Your task to perform on an android device: Turn off the flashlight Image 0: 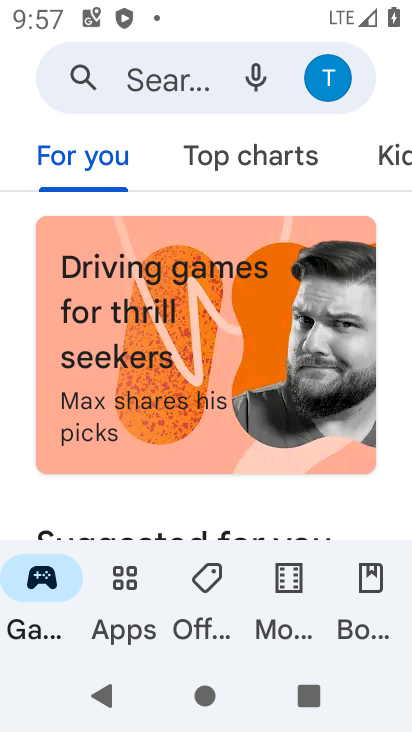
Step 0: press home button
Your task to perform on an android device: Turn off the flashlight Image 1: 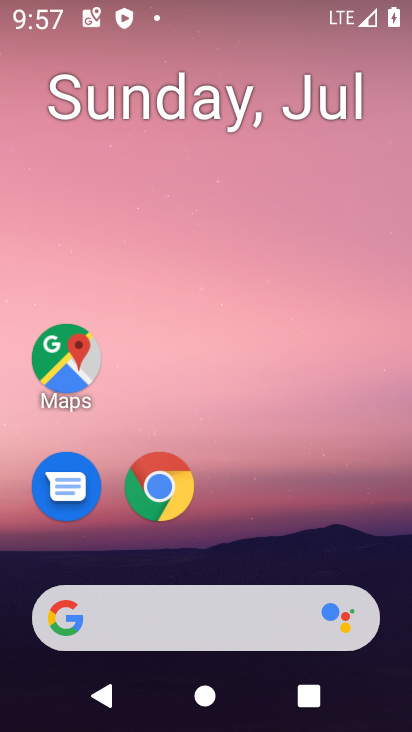
Step 1: drag from (254, 0) to (263, 395)
Your task to perform on an android device: Turn off the flashlight Image 2: 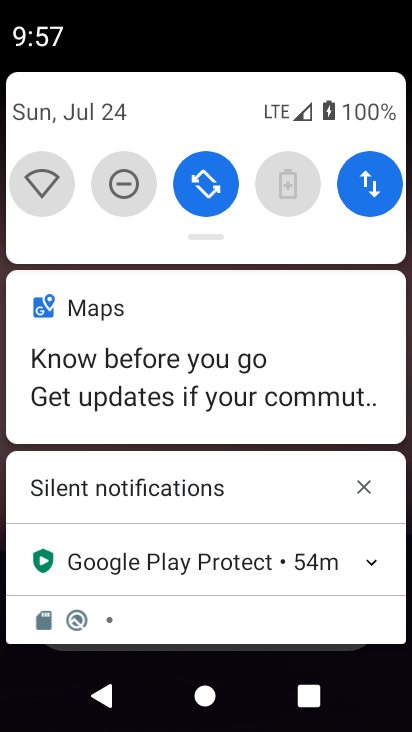
Step 2: drag from (237, 97) to (248, 387)
Your task to perform on an android device: Turn off the flashlight Image 3: 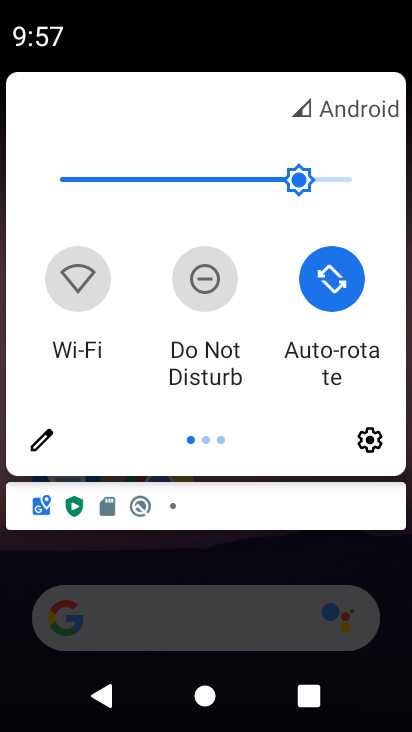
Step 3: click (35, 435)
Your task to perform on an android device: Turn off the flashlight Image 4: 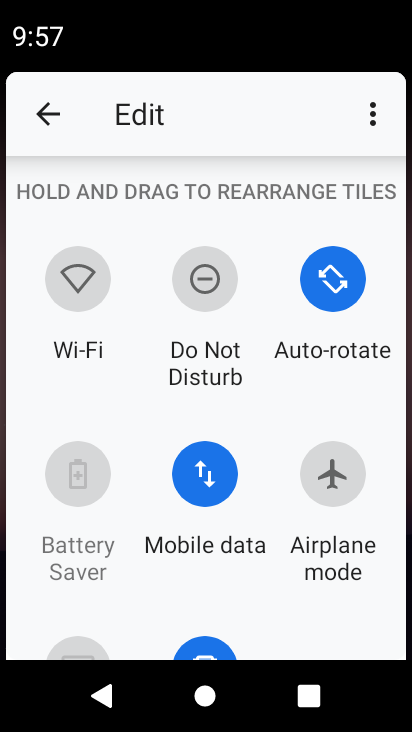
Step 4: task complete